Your task to perform on an android device: read, delete, or share a saved page in the chrome app Image 0: 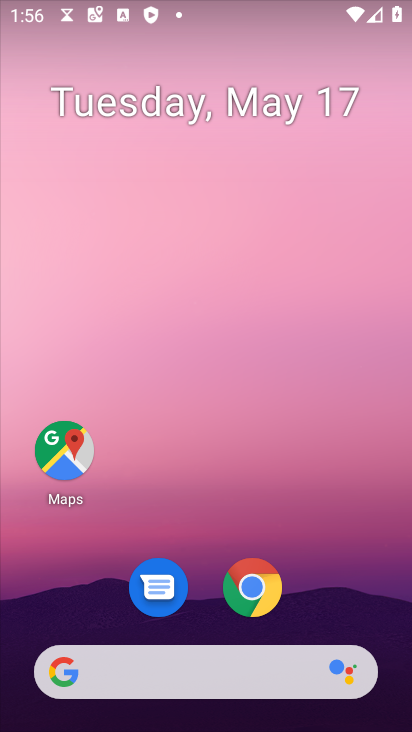
Step 0: drag from (217, 626) to (364, 4)
Your task to perform on an android device: read, delete, or share a saved page in the chrome app Image 1: 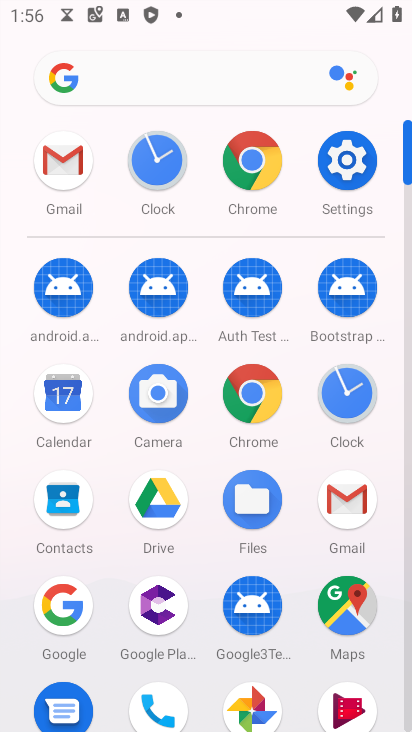
Step 1: click (244, 398)
Your task to perform on an android device: read, delete, or share a saved page in the chrome app Image 2: 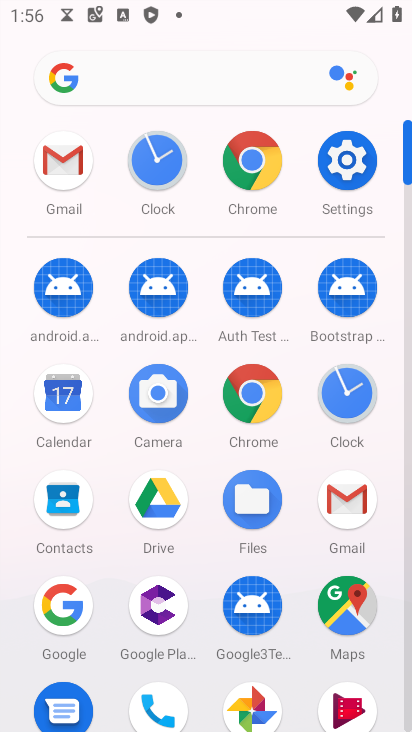
Step 2: click (245, 396)
Your task to perform on an android device: read, delete, or share a saved page in the chrome app Image 3: 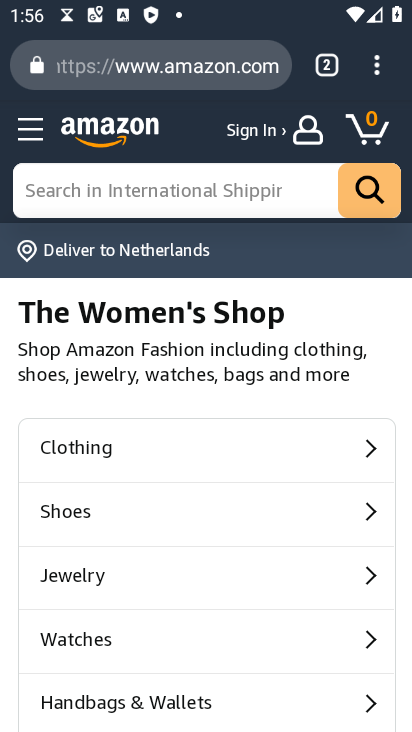
Step 3: click (374, 60)
Your task to perform on an android device: read, delete, or share a saved page in the chrome app Image 4: 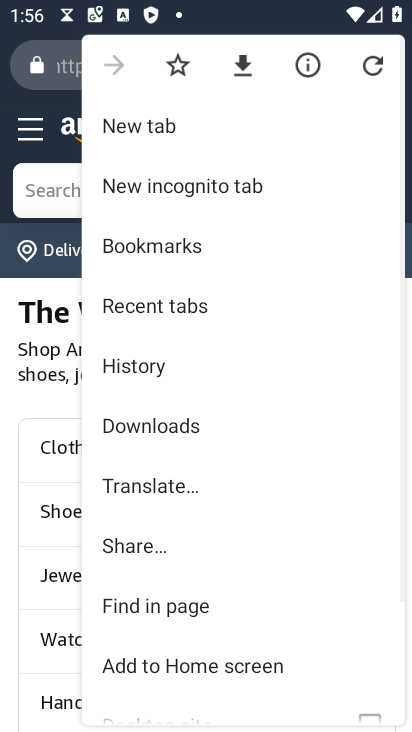
Step 4: drag from (258, 559) to (337, 49)
Your task to perform on an android device: read, delete, or share a saved page in the chrome app Image 5: 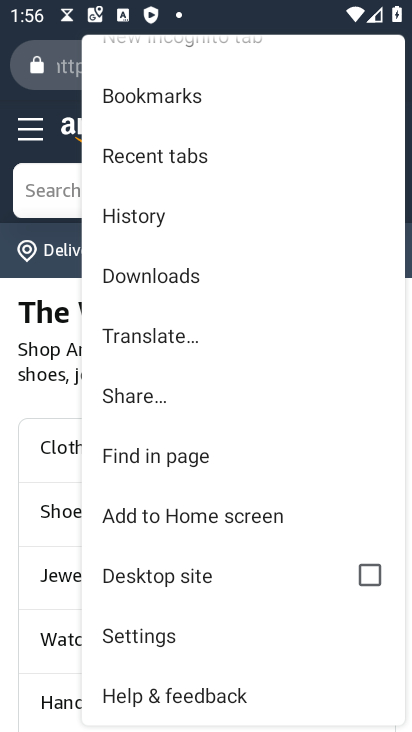
Step 5: drag from (191, 227) to (249, 507)
Your task to perform on an android device: read, delete, or share a saved page in the chrome app Image 6: 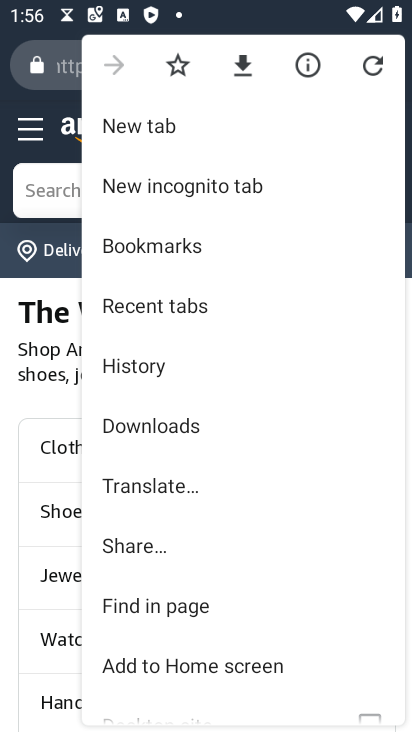
Step 6: click (185, 249)
Your task to perform on an android device: read, delete, or share a saved page in the chrome app Image 7: 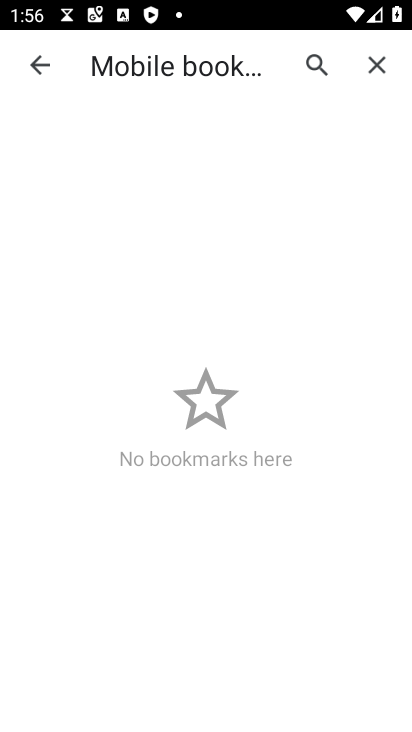
Step 7: drag from (274, 571) to (285, 222)
Your task to perform on an android device: read, delete, or share a saved page in the chrome app Image 8: 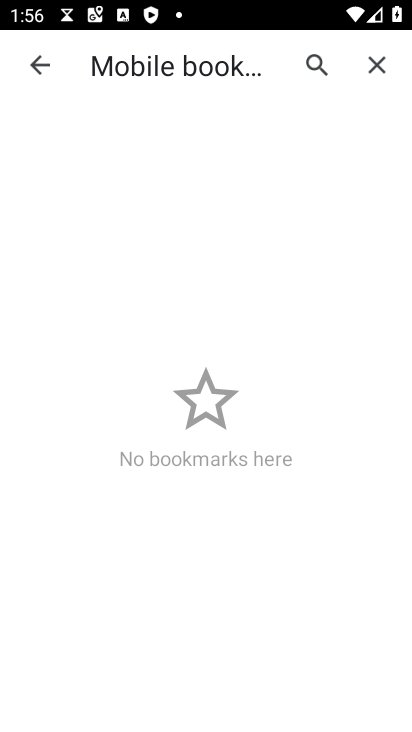
Step 8: drag from (244, 309) to (309, 554)
Your task to perform on an android device: read, delete, or share a saved page in the chrome app Image 9: 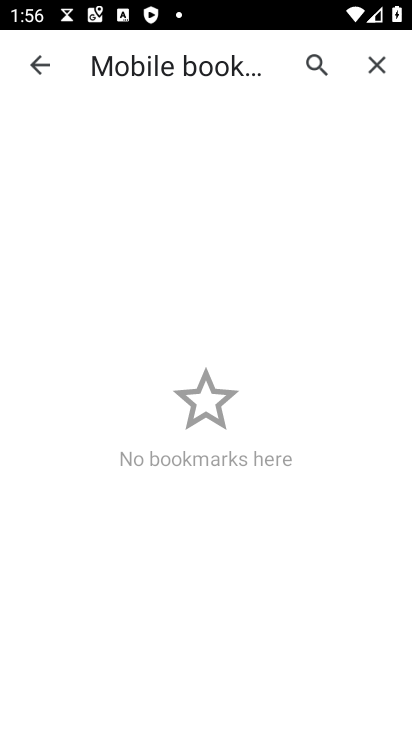
Step 9: click (298, 531)
Your task to perform on an android device: read, delete, or share a saved page in the chrome app Image 10: 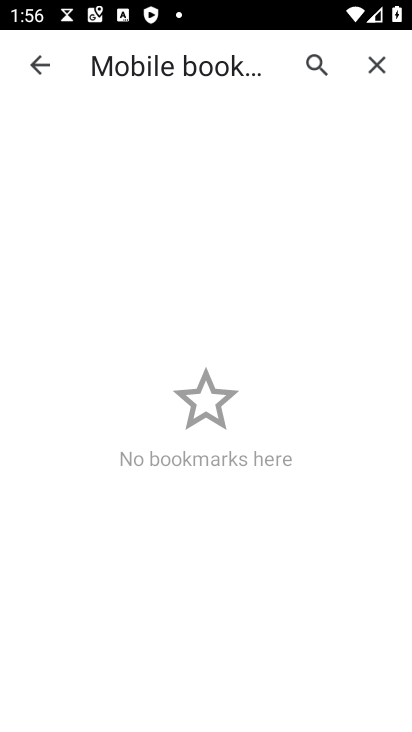
Step 10: task complete